Your task to perform on an android device: clear history in the chrome app Image 0: 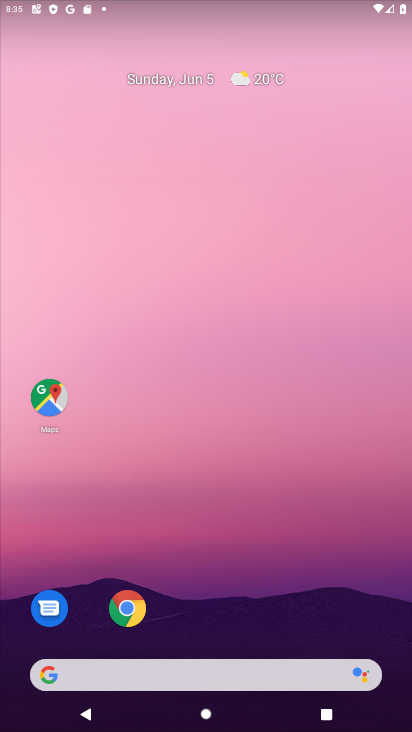
Step 0: click (114, 600)
Your task to perform on an android device: clear history in the chrome app Image 1: 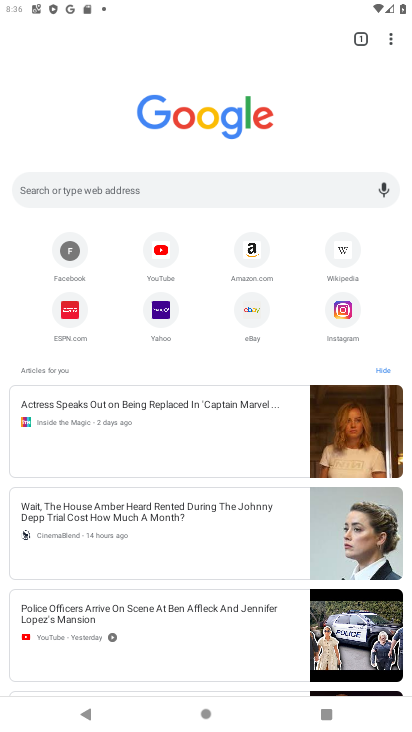
Step 1: click (384, 38)
Your task to perform on an android device: clear history in the chrome app Image 2: 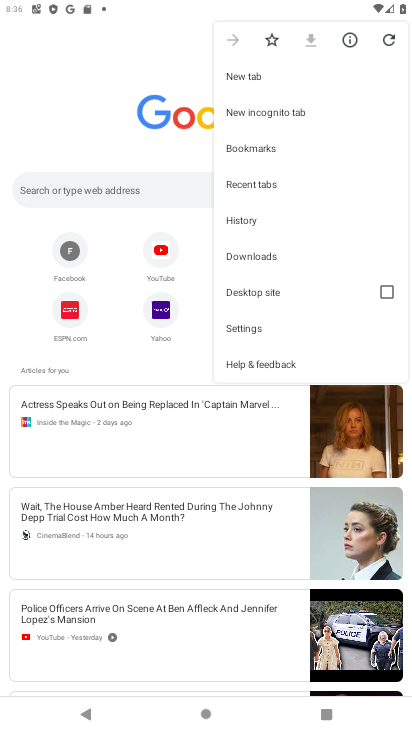
Step 2: click (241, 222)
Your task to perform on an android device: clear history in the chrome app Image 3: 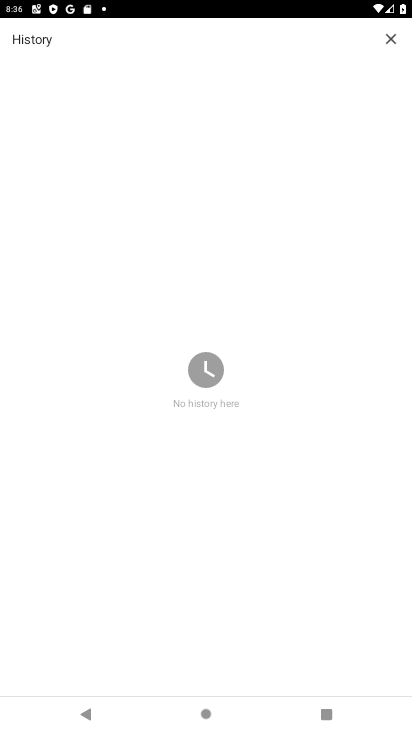
Step 3: task complete